Your task to perform on an android device: delete location history Image 0: 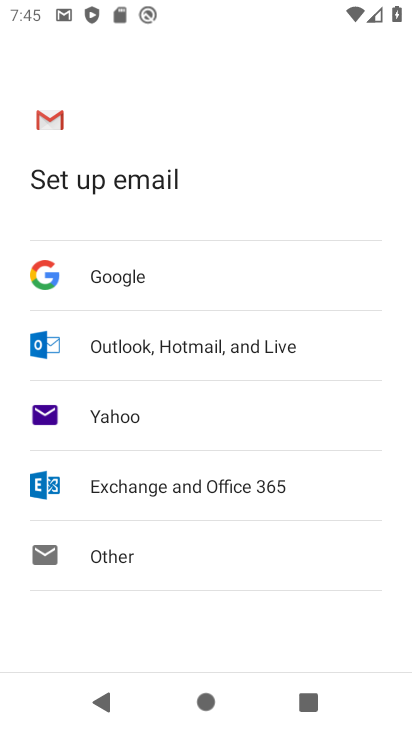
Step 0: press back button
Your task to perform on an android device: delete location history Image 1: 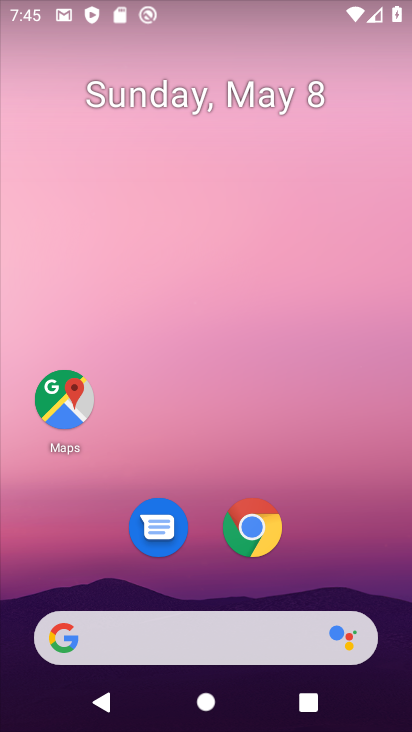
Step 1: drag from (399, 647) to (311, 65)
Your task to perform on an android device: delete location history Image 2: 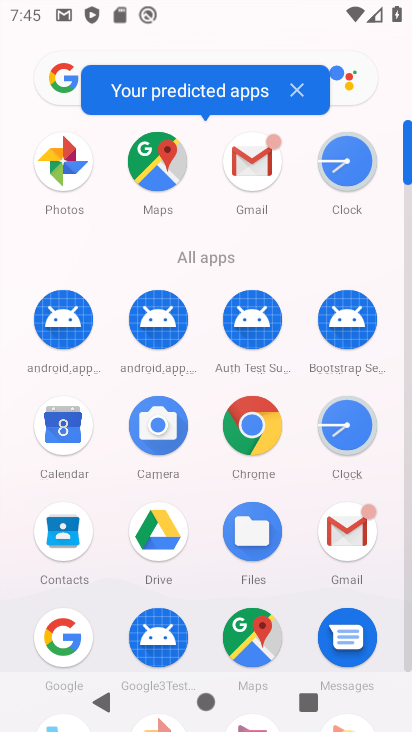
Step 2: drag from (5, 617) to (11, 274)
Your task to perform on an android device: delete location history Image 3: 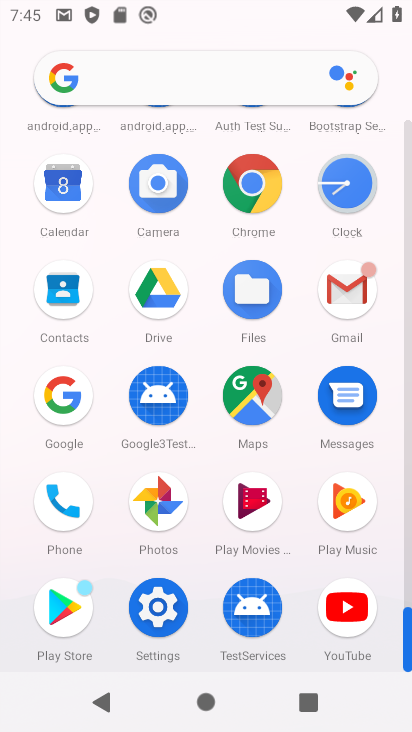
Step 3: click (152, 607)
Your task to perform on an android device: delete location history Image 4: 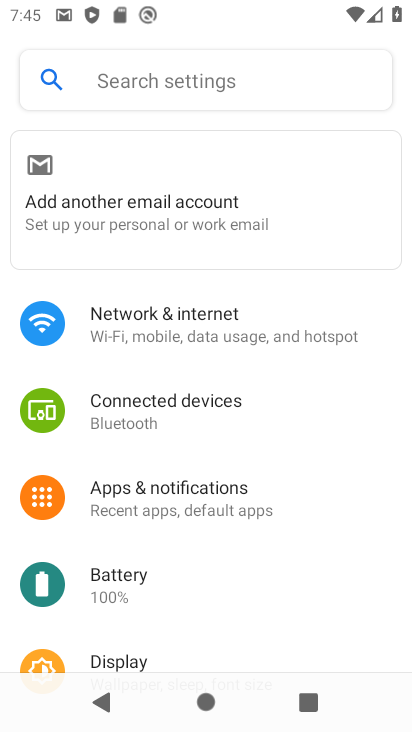
Step 4: drag from (349, 615) to (351, 188)
Your task to perform on an android device: delete location history Image 5: 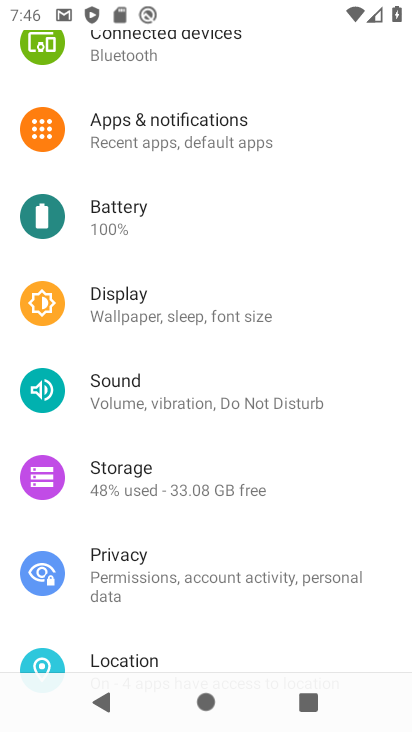
Step 5: click (161, 658)
Your task to perform on an android device: delete location history Image 6: 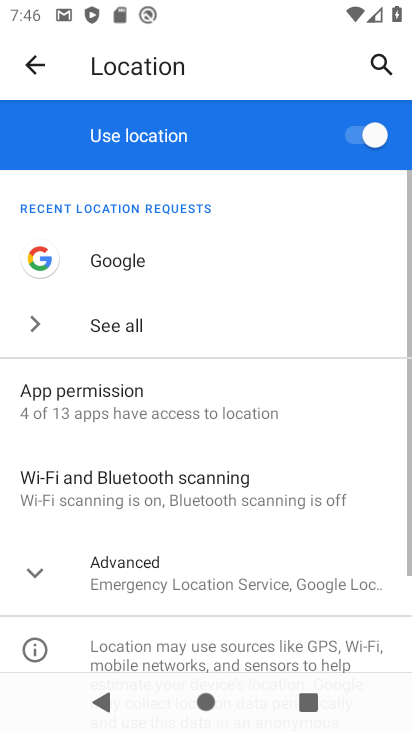
Step 6: click (36, 583)
Your task to perform on an android device: delete location history Image 7: 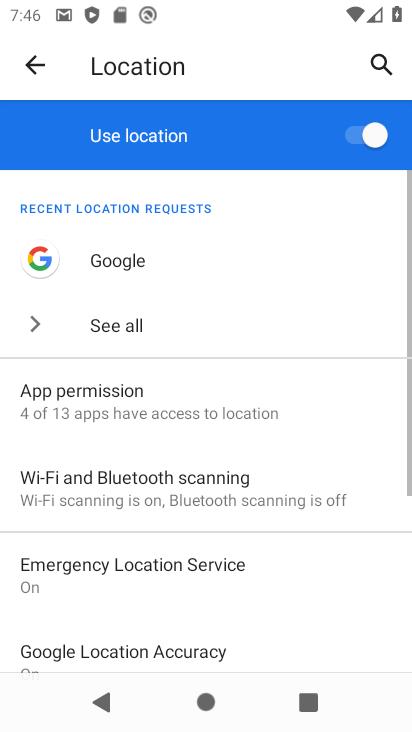
Step 7: drag from (315, 606) to (298, 229)
Your task to perform on an android device: delete location history Image 8: 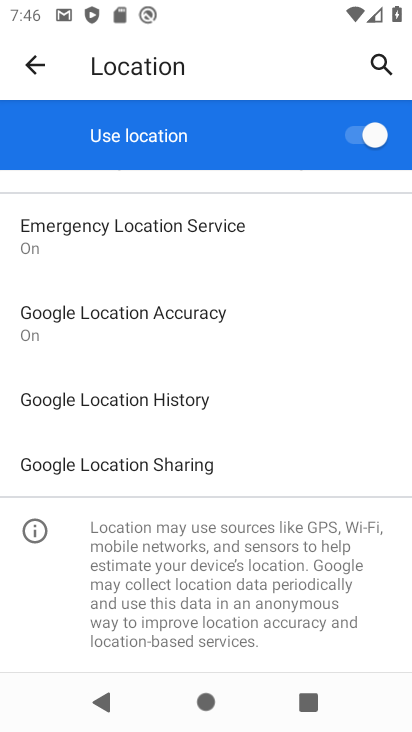
Step 8: click (177, 394)
Your task to perform on an android device: delete location history Image 9: 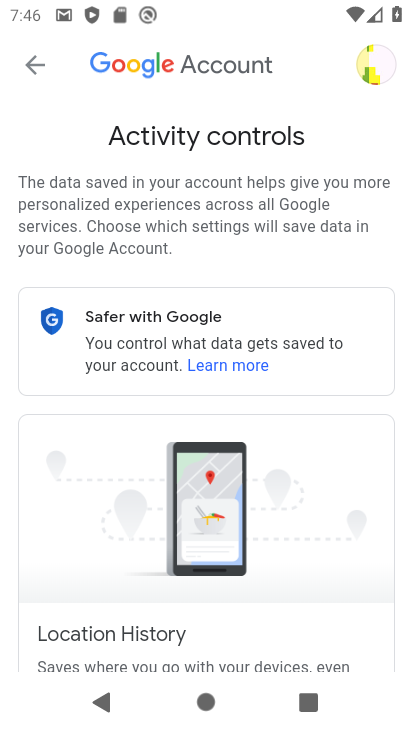
Step 9: drag from (303, 519) to (303, 113)
Your task to perform on an android device: delete location history Image 10: 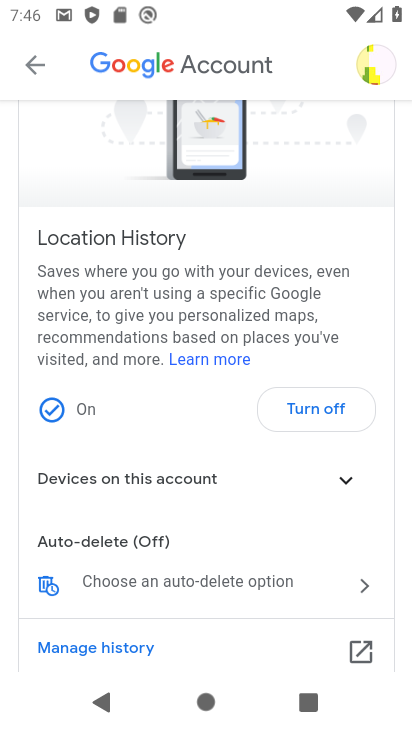
Step 10: drag from (222, 548) to (282, 139)
Your task to perform on an android device: delete location history Image 11: 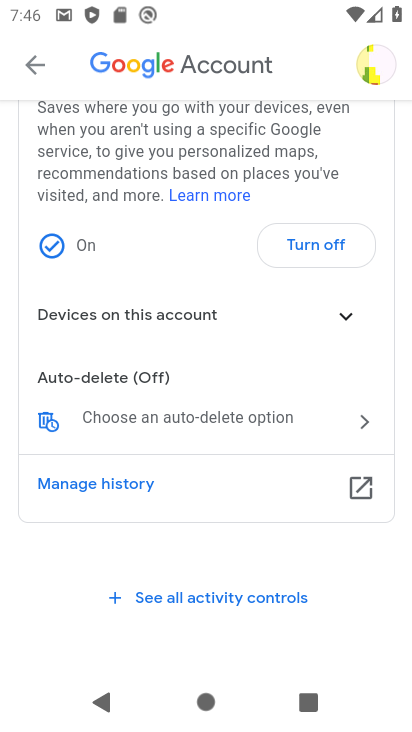
Step 11: click (46, 425)
Your task to perform on an android device: delete location history Image 12: 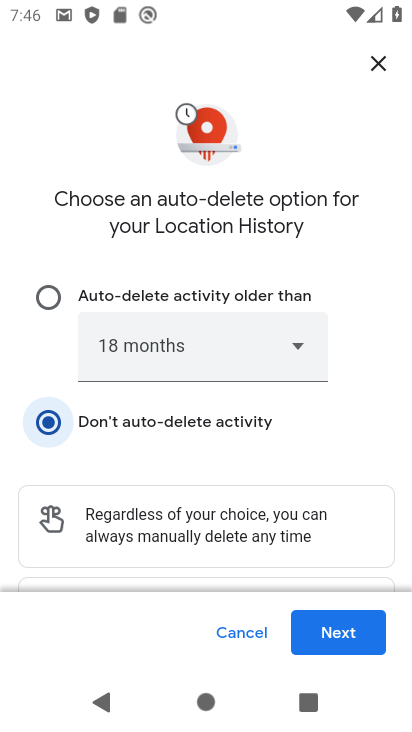
Step 12: click (330, 629)
Your task to perform on an android device: delete location history Image 13: 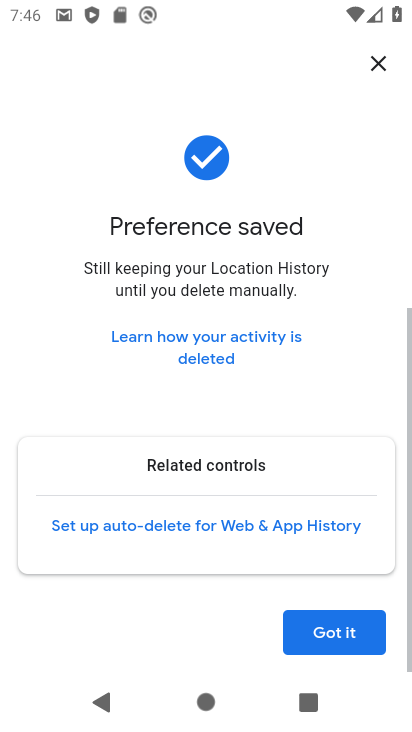
Step 13: click (331, 627)
Your task to perform on an android device: delete location history Image 14: 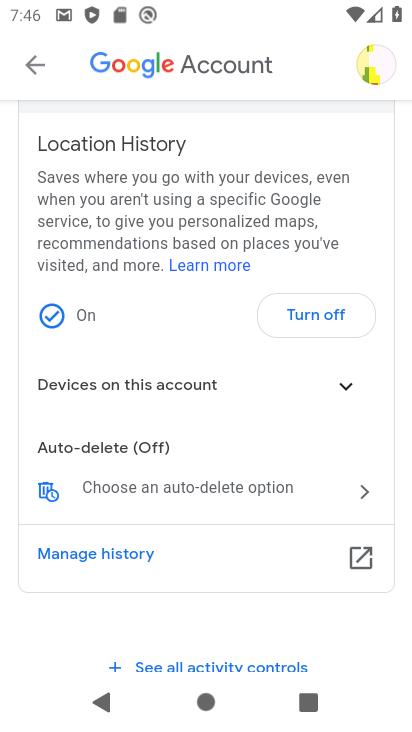
Step 14: task complete